Your task to perform on an android device: change the upload size in google photos Image 0: 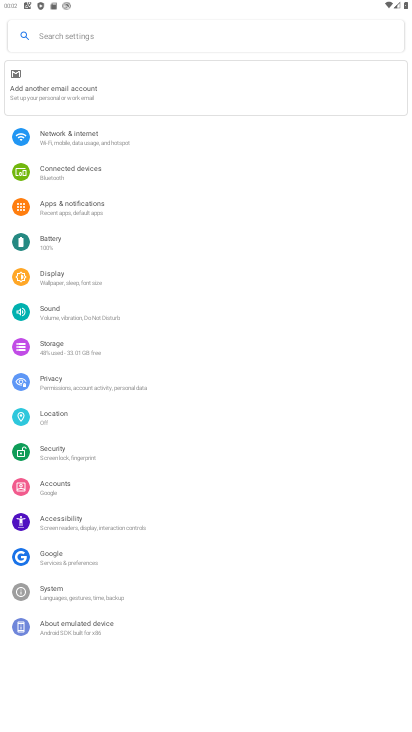
Step 0: press home button
Your task to perform on an android device: change the upload size in google photos Image 1: 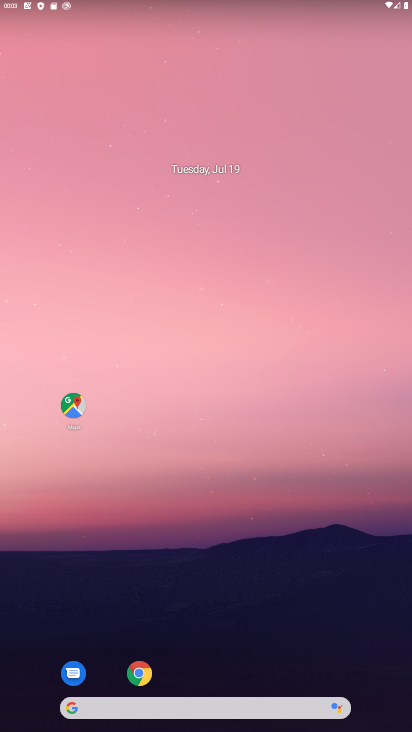
Step 1: drag from (184, 673) to (228, 187)
Your task to perform on an android device: change the upload size in google photos Image 2: 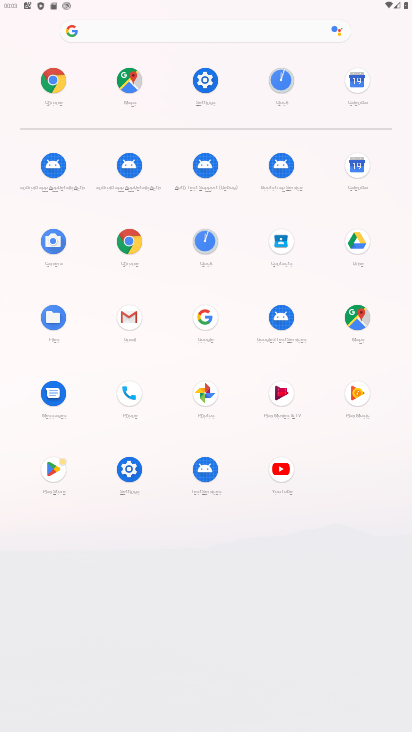
Step 2: click (212, 398)
Your task to perform on an android device: change the upload size in google photos Image 3: 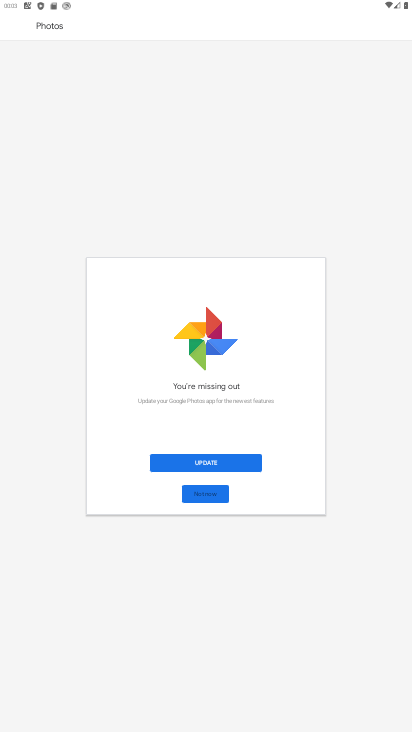
Step 3: click (208, 502)
Your task to perform on an android device: change the upload size in google photos Image 4: 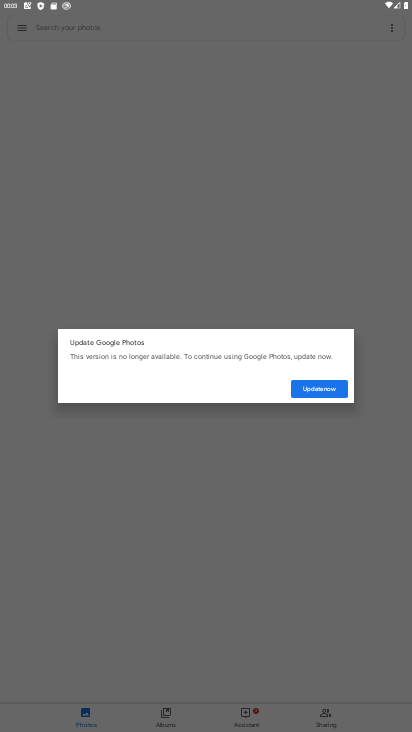
Step 4: click (315, 380)
Your task to perform on an android device: change the upload size in google photos Image 5: 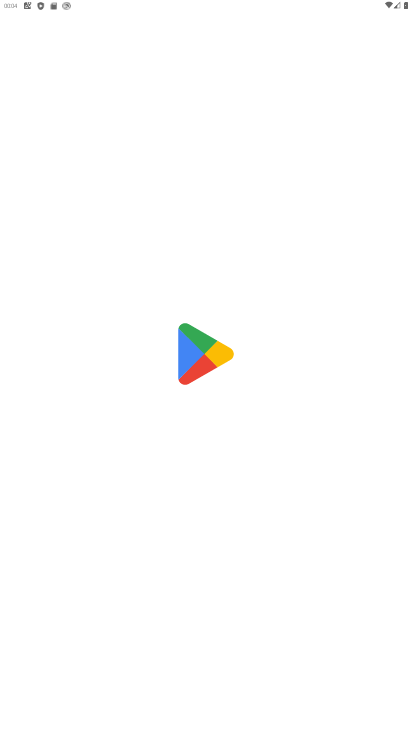
Step 5: press back button
Your task to perform on an android device: change the upload size in google photos Image 6: 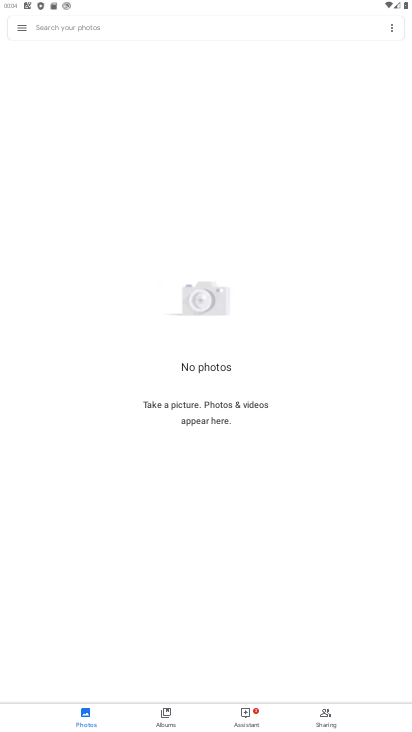
Step 6: click (16, 23)
Your task to perform on an android device: change the upload size in google photos Image 7: 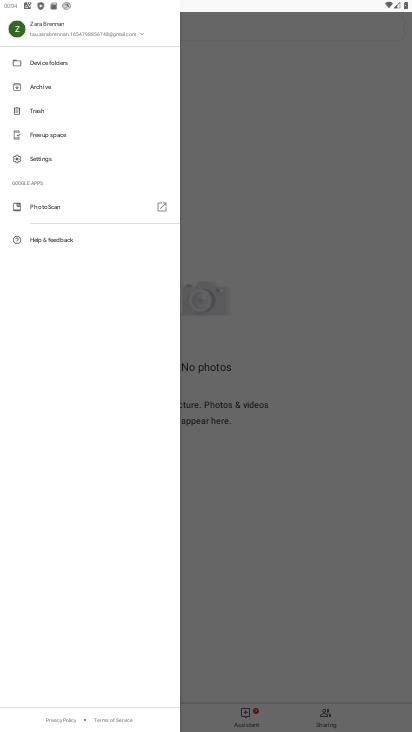
Step 7: click (47, 152)
Your task to perform on an android device: change the upload size in google photos Image 8: 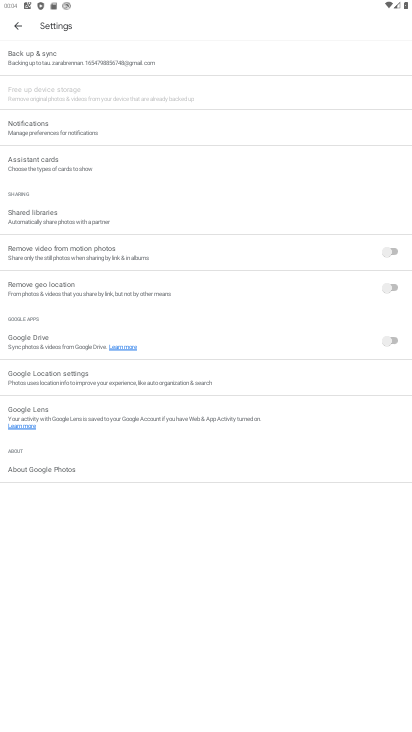
Step 8: click (59, 51)
Your task to perform on an android device: change the upload size in google photos Image 9: 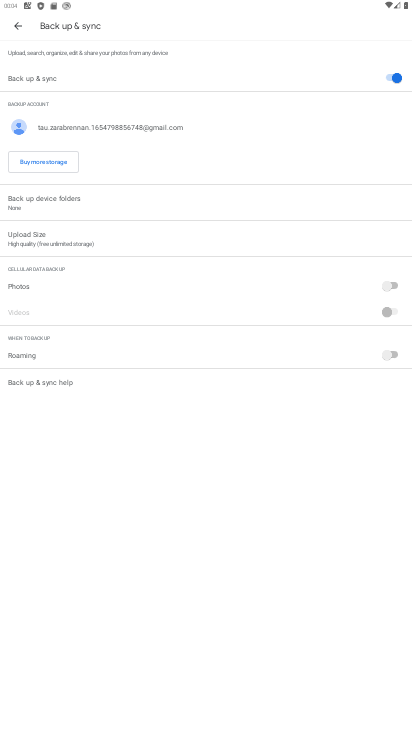
Step 9: click (59, 244)
Your task to perform on an android device: change the upload size in google photos Image 10: 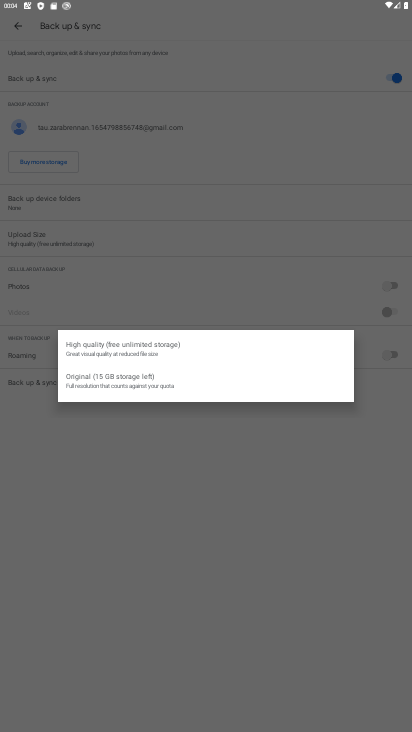
Step 10: click (103, 375)
Your task to perform on an android device: change the upload size in google photos Image 11: 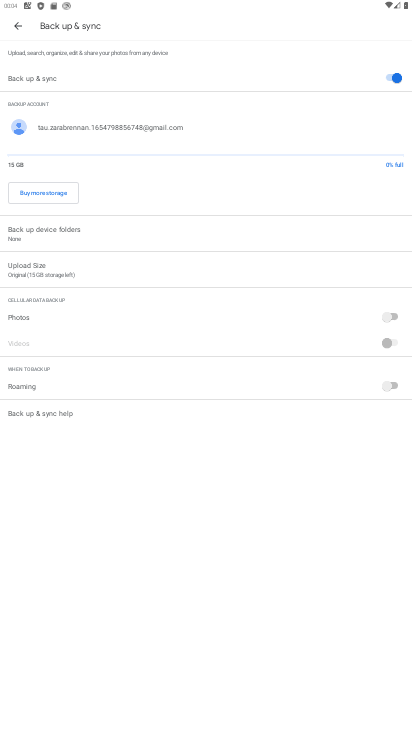
Step 11: task complete